Your task to perform on an android device: clear all cookies in the chrome app Image 0: 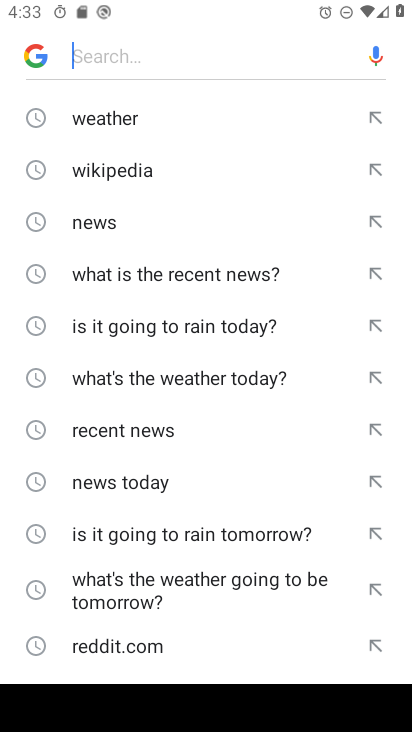
Step 0: press home button
Your task to perform on an android device: clear all cookies in the chrome app Image 1: 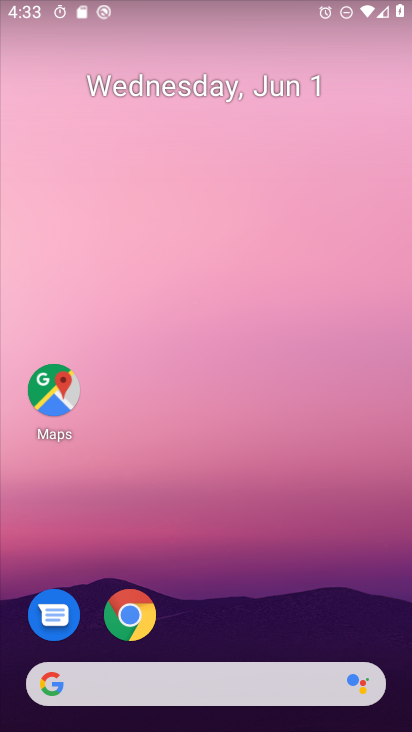
Step 1: drag from (322, 644) to (341, 159)
Your task to perform on an android device: clear all cookies in the chrome app Image 2: 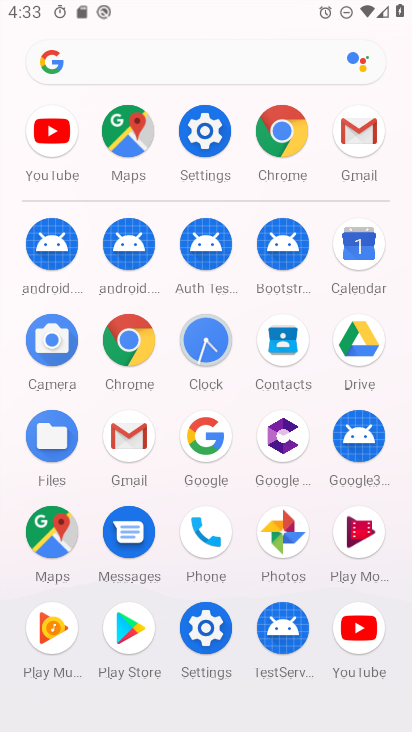
Step 2: click (301, 138)
Your task to perform on an android device: clear all cookies in the chrome app Image 3: 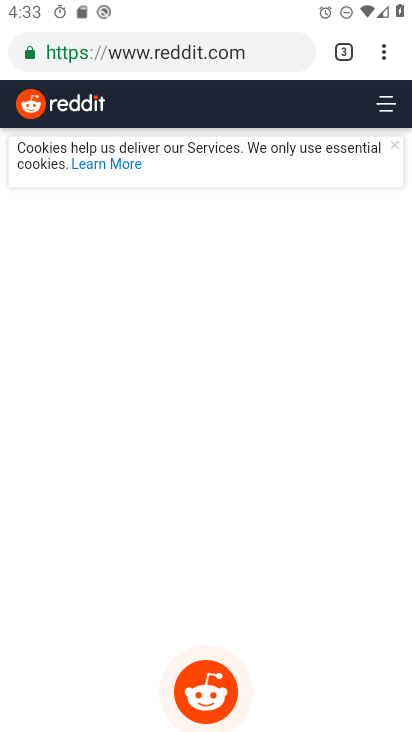
Step 3: click (385, 53)
Your task to perform on an android device: clear all cookies in the chrome app Image 4: 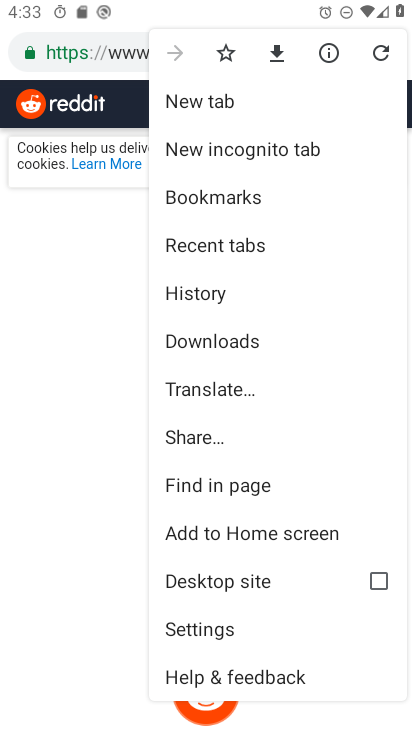
Step 4: click (240, 291)
Your task to perform on an android device: clear all cookies in the chrome app Image 5: 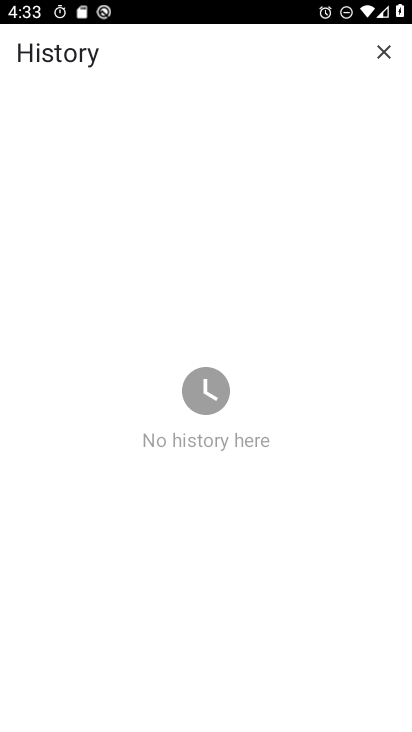
Step 5: click (387, 50)
Your task to perform on an android device: clear all cookies in the chrome app Image 6: 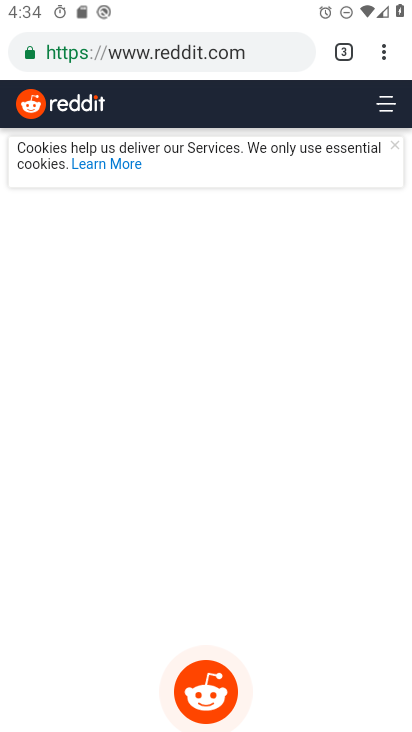
Step 6: click (387, 51)
Your task to perform on an android device: clear all cookies in the chrome app Image 7: 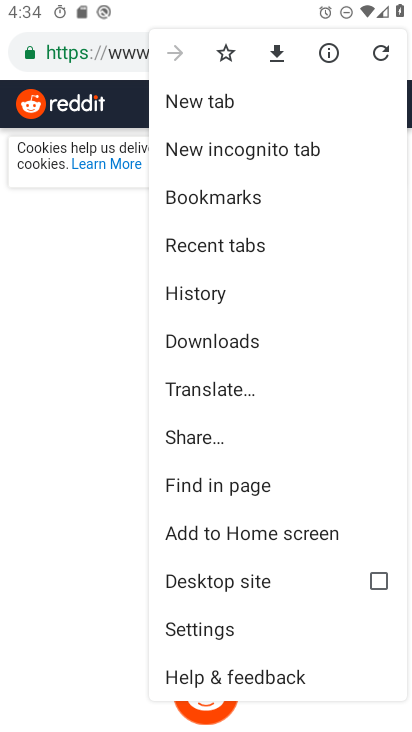
Step 7: click (228, 628)
Your task to perform on an android device: clear all cookies in the chrome app Image 8: 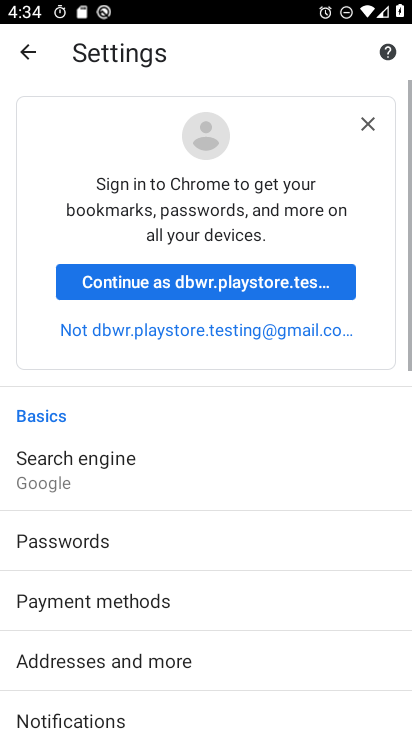
Step 8: drag from (276, 560) to (295, 314)
Your task to perform on an android device: clear all cookies in the chrome app Image 9: 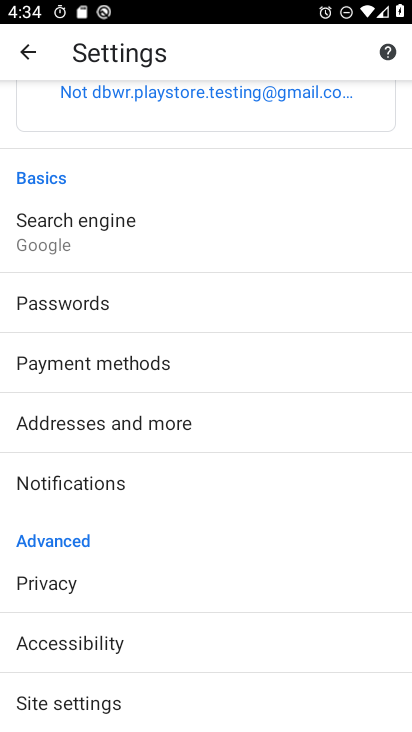
Step 9: drag from (267, 557) to (276, 295)
Your task to perform on an android device: clear all cookies in the chrome app Image 10: 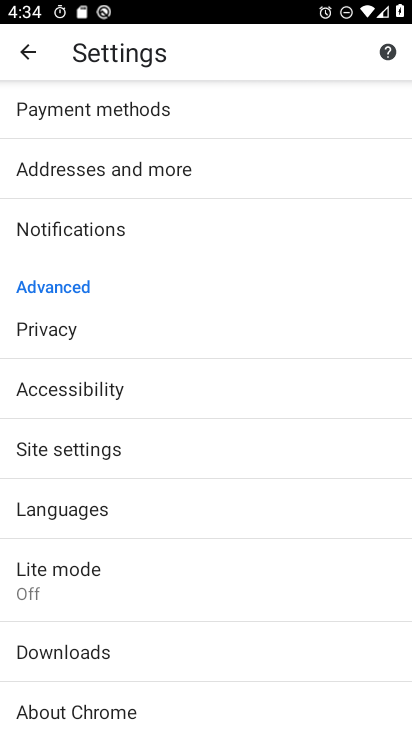
Step 10: drag from (250, 615) to (269, 424)
Your task to perform on an android device: clear all cookies in the chrome app Image 11: 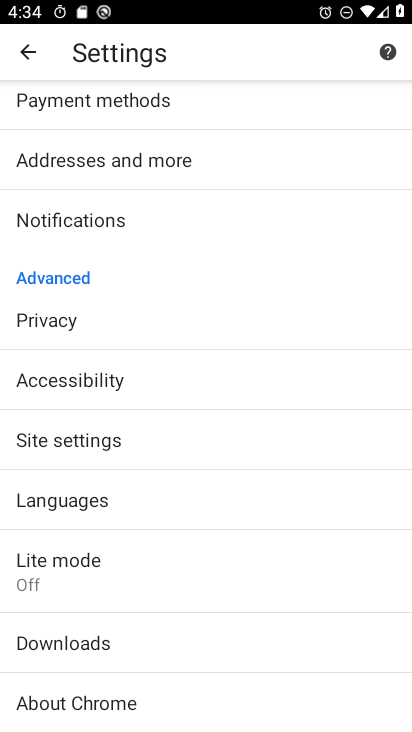
Step 11: press back button
Your task to perform on an android device: clear all cookies in the chrome app Image 12: 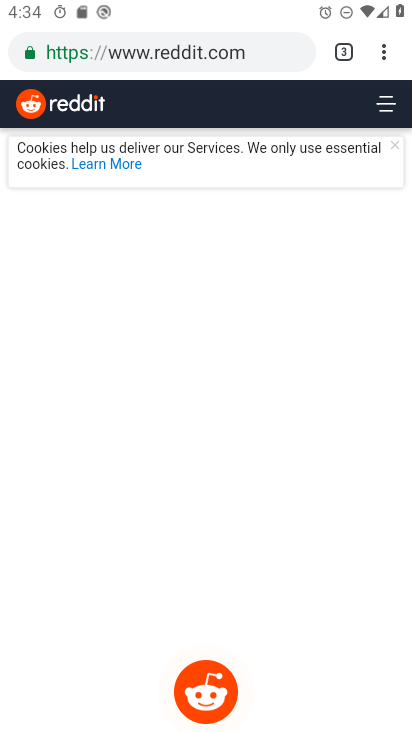
Step 12: click (387, 55)
Your task to perform on an android device: clear all cookies in the chrome app Image 13: 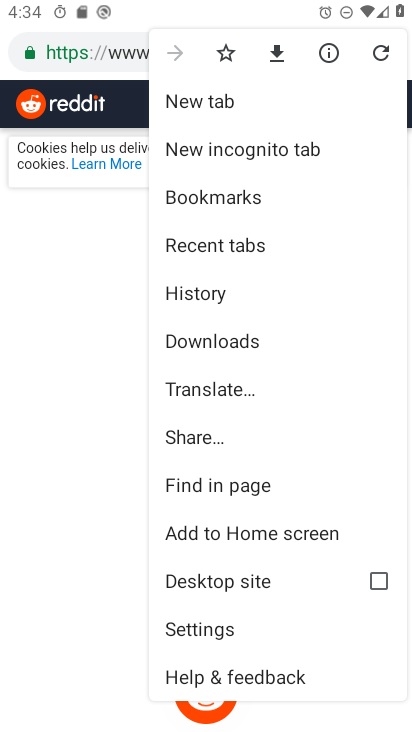
Step 13: drag from (298, 633) to (300, 328)
Your task to perform on an android device: clear all cookies in the chrome app Image 14: 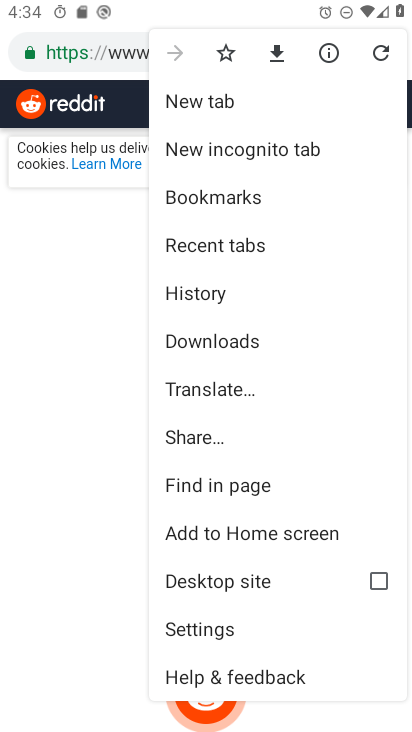
Step 14: click (217, 631)
Your task to perform on an android device: clear all cookies in the chrome app Image 15: 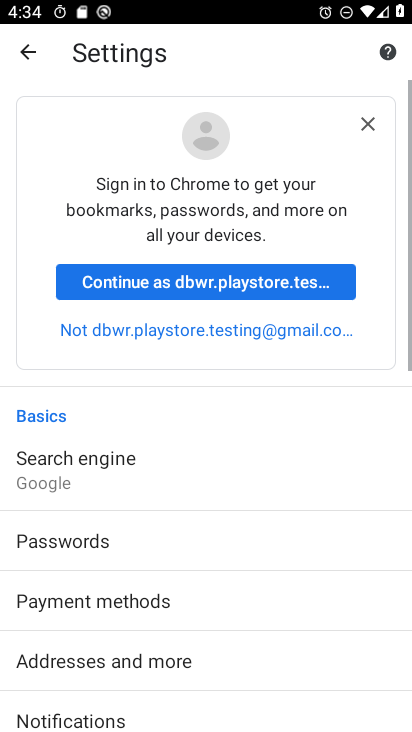
Step 15: drag from (273, 474) to (285, 266)
Your task to perform on an android device: clear all cookies in the chrome app Image 16: 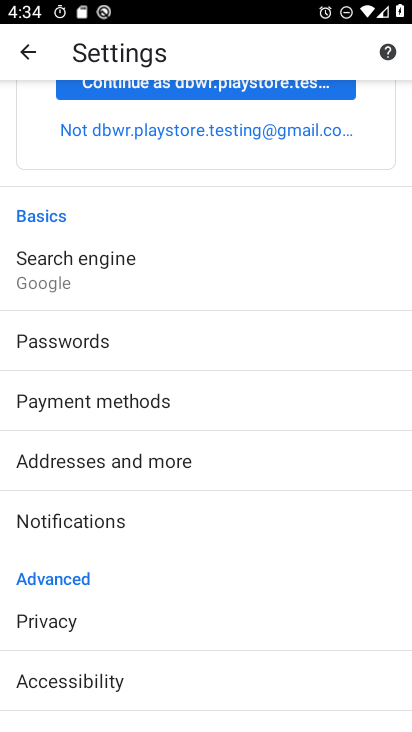
Step 16: drag from (241, 560) to (244, 254)
Your task to perform on an android device: clear all cookies in the chrome app Image 17: 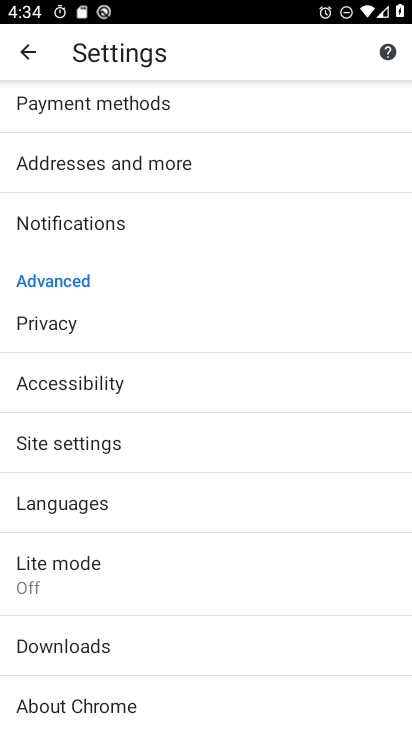
Step 17: drag from (174, 593) to (215, 415)
Your task to perform on an android device: clear all cookies in the chrome app Image 18: 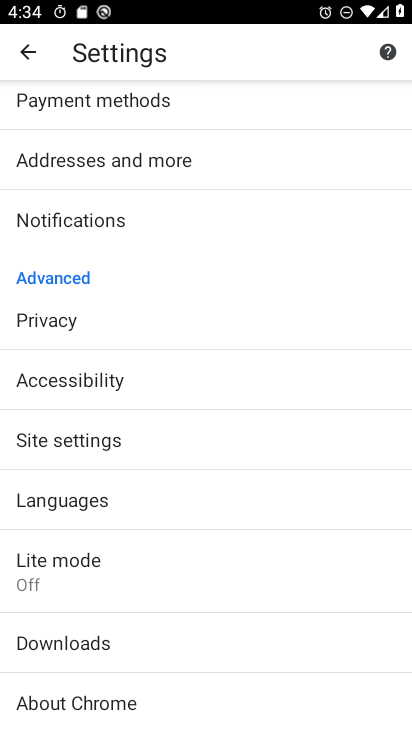
Step 18: click (171, 370)
Your task to perform on an android device: clear all cookies in the chrome app Image 19: 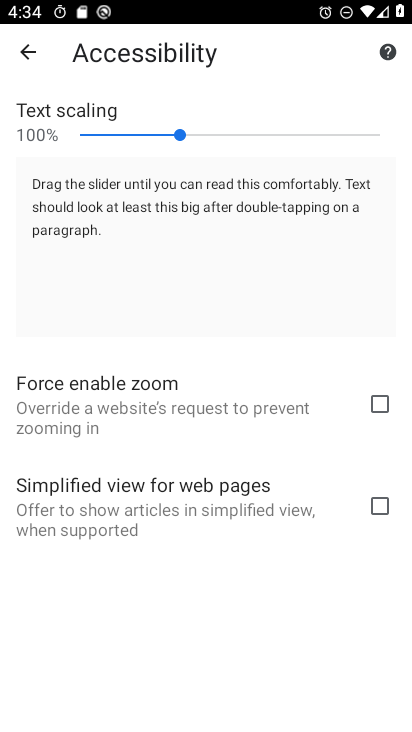
Step 19: press back button
Your task to perform on an android device: clear all cookies in the chrome app Image 20: 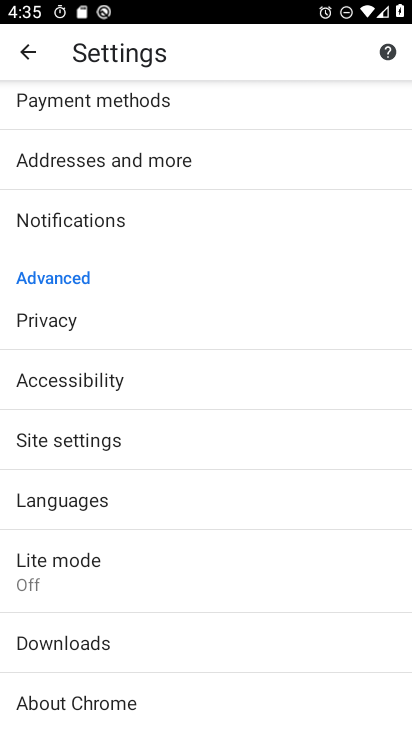
Step 20: click (215, 646)
Your task to perform on an android device: clear all cookies in the chrome app Image 21: 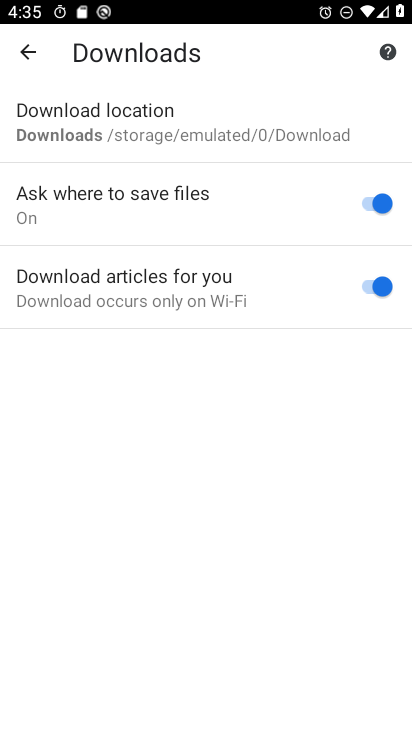
Step 21: press back button
Your task to perform on an android device: clear all cookies in the chrome app Image 22: 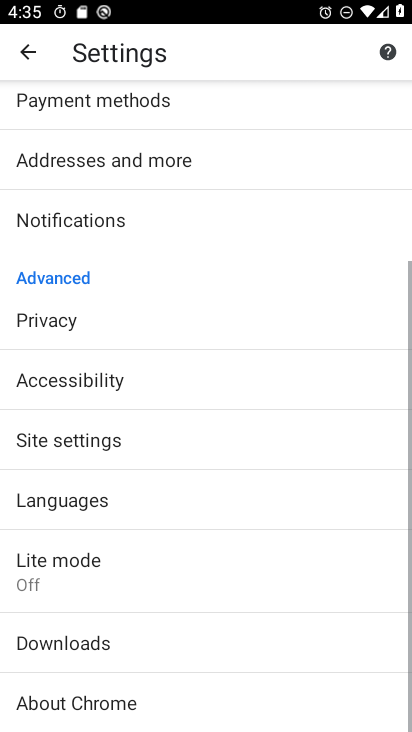
Step 22: drag from (289, 301) to (250, 480)
Your task to perform on an android device: clear all cookies in the chrome app Image 23: 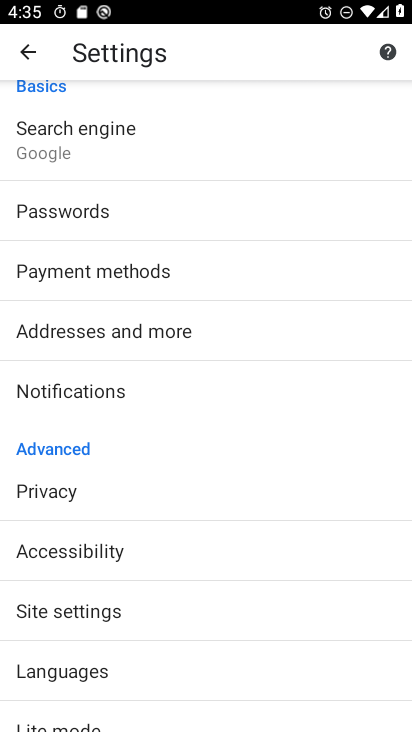
Step 23: press back button
Your task to perform on an android device: clear all cookies in the chrome app Image 24: 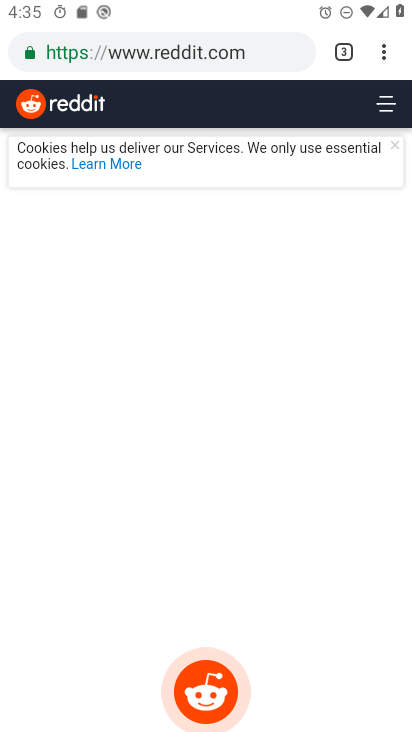
Step 24: click (385, 59)
Your task to perform on an android device: clear all cookies in the chrome app Image 25: 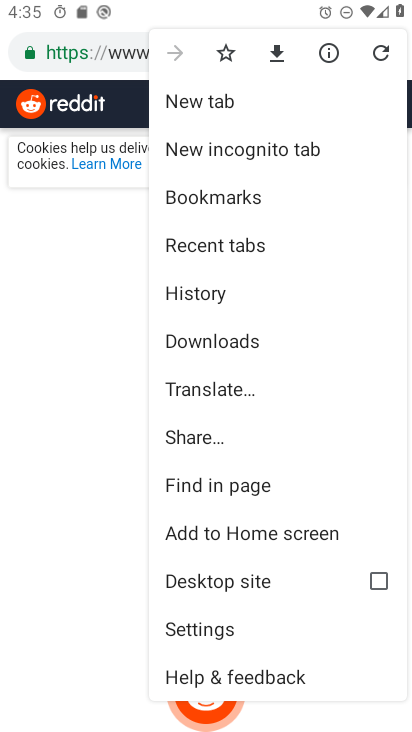
Step 25: click (233, 291)
Your task to perform on an android device: clear all cookies in the chrome app Image 26: 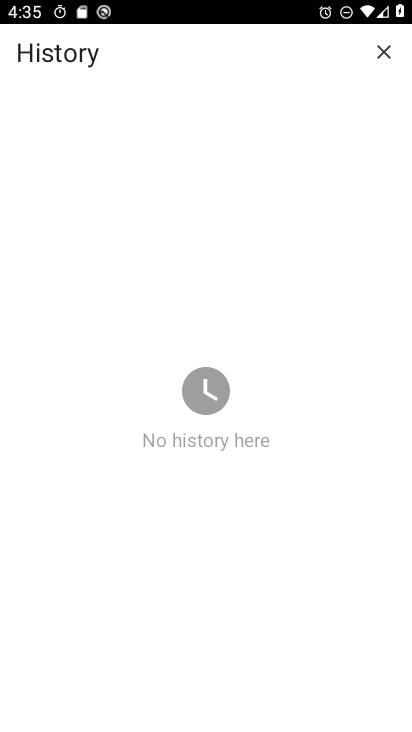
Step 26: task complete